Your task to perform on an android device: toggle show notifications on the lock screen Image 0: 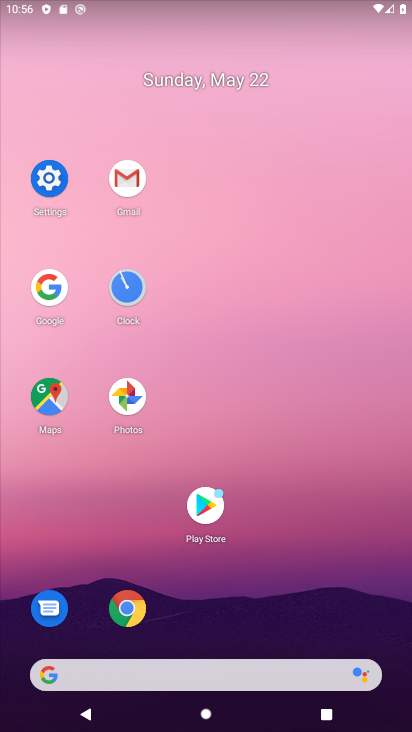
Step 0: click (55, 194)
Your task to perform on an android device: toggle show notifications on the lock screen Image 1: 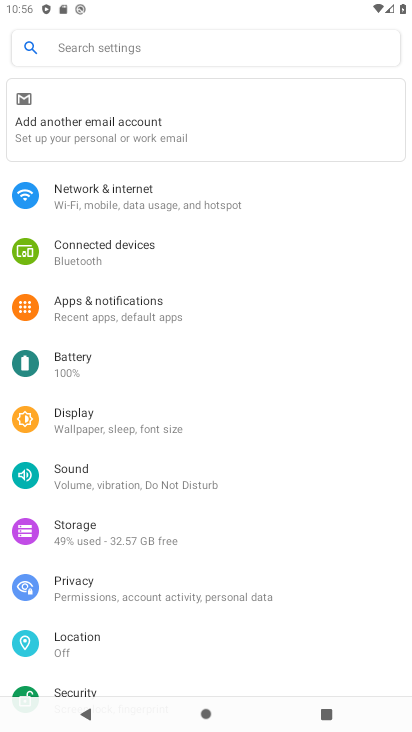
Step 1: click (155, 334)
Your task to perform on an android device: toggle show notifications on the lock screen Image 2: 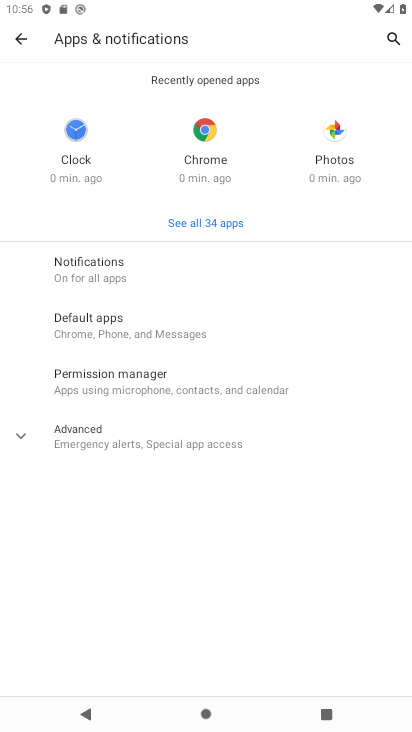
Step 2: click (146, 294)
Your task to perform on an android device: toggle show notifications on the lock screen Image 3: 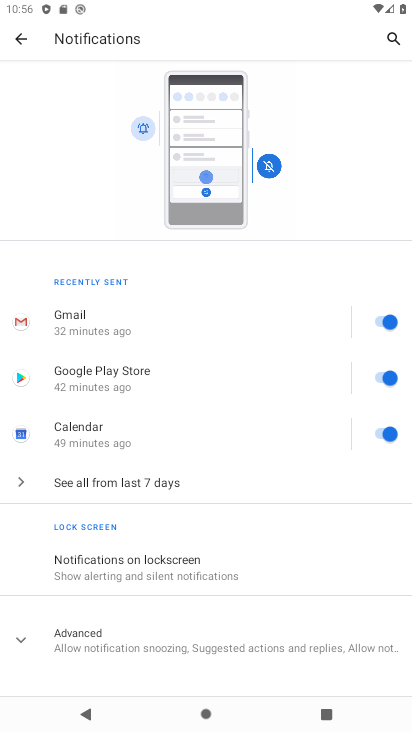
Step 3: click (145, 560)
Your task to perform on an android device: toggle show notifications on the lock screen Image 4: 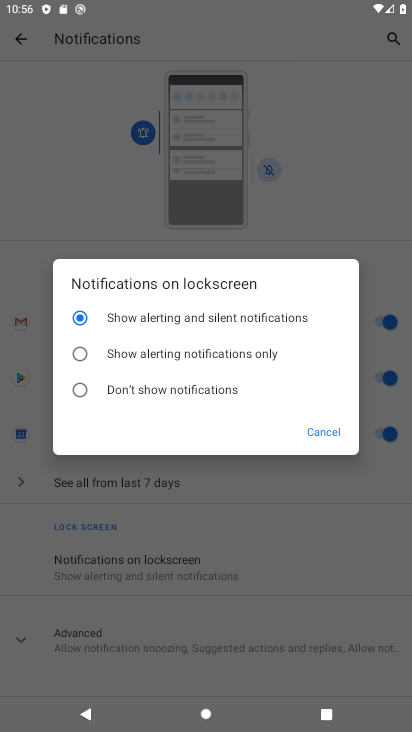
Step 4: click (89, 355)
Your task to perform on an android device: toggle show notifications on the lock screen Image 5: 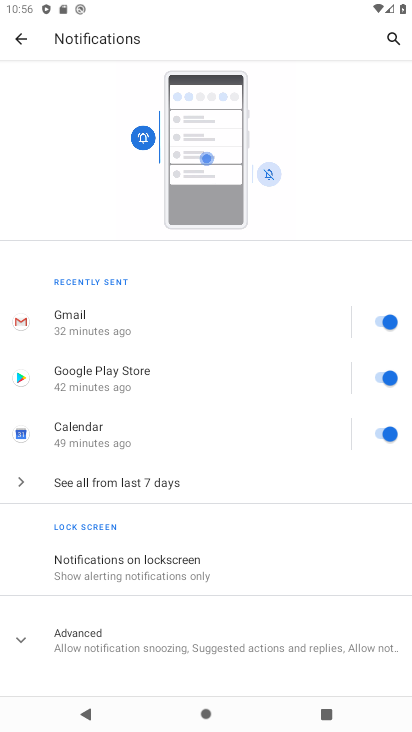
Step 5: task complete